Your task to perform on an android device: When is my next meeting? Image 0: 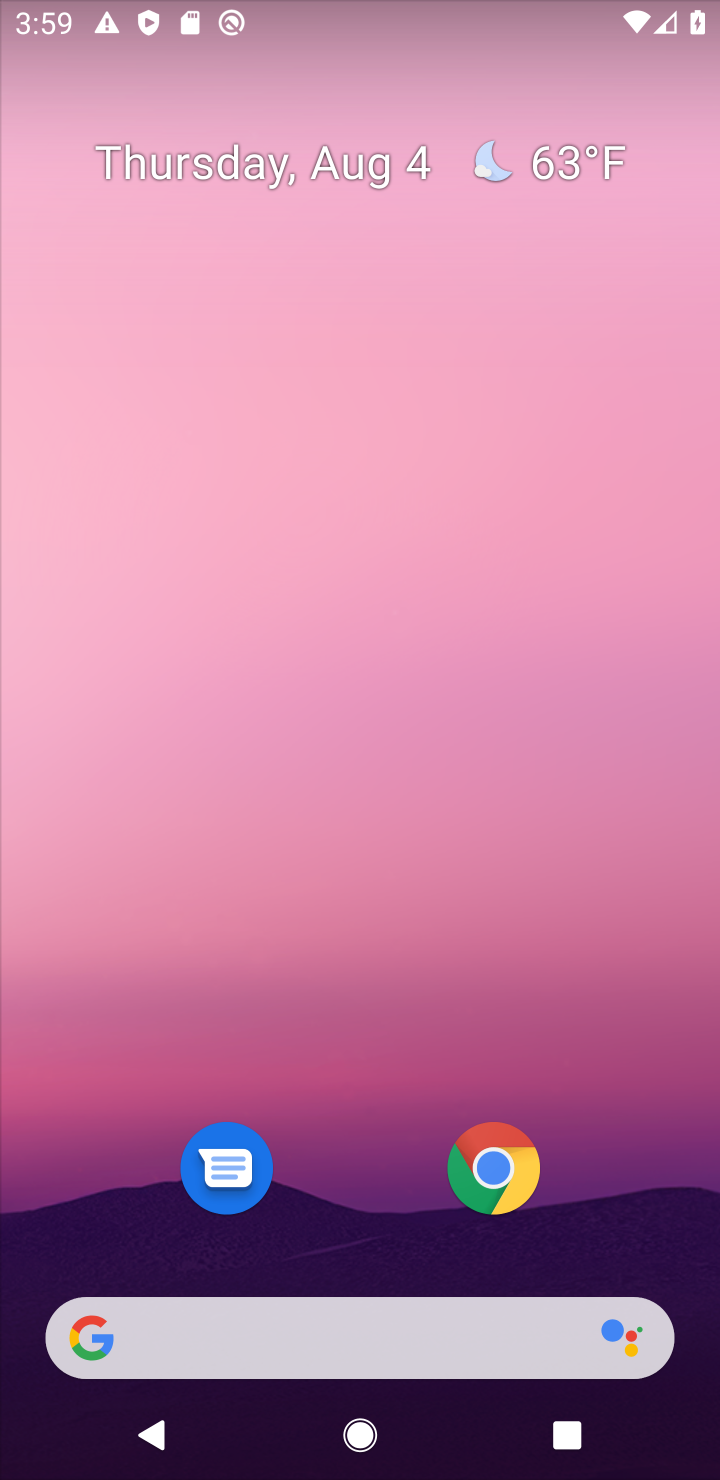
Step 0: drag from (391, 1277) to (312, 56)
Your task to perform on an android device: When is my next meeting? Image 1: 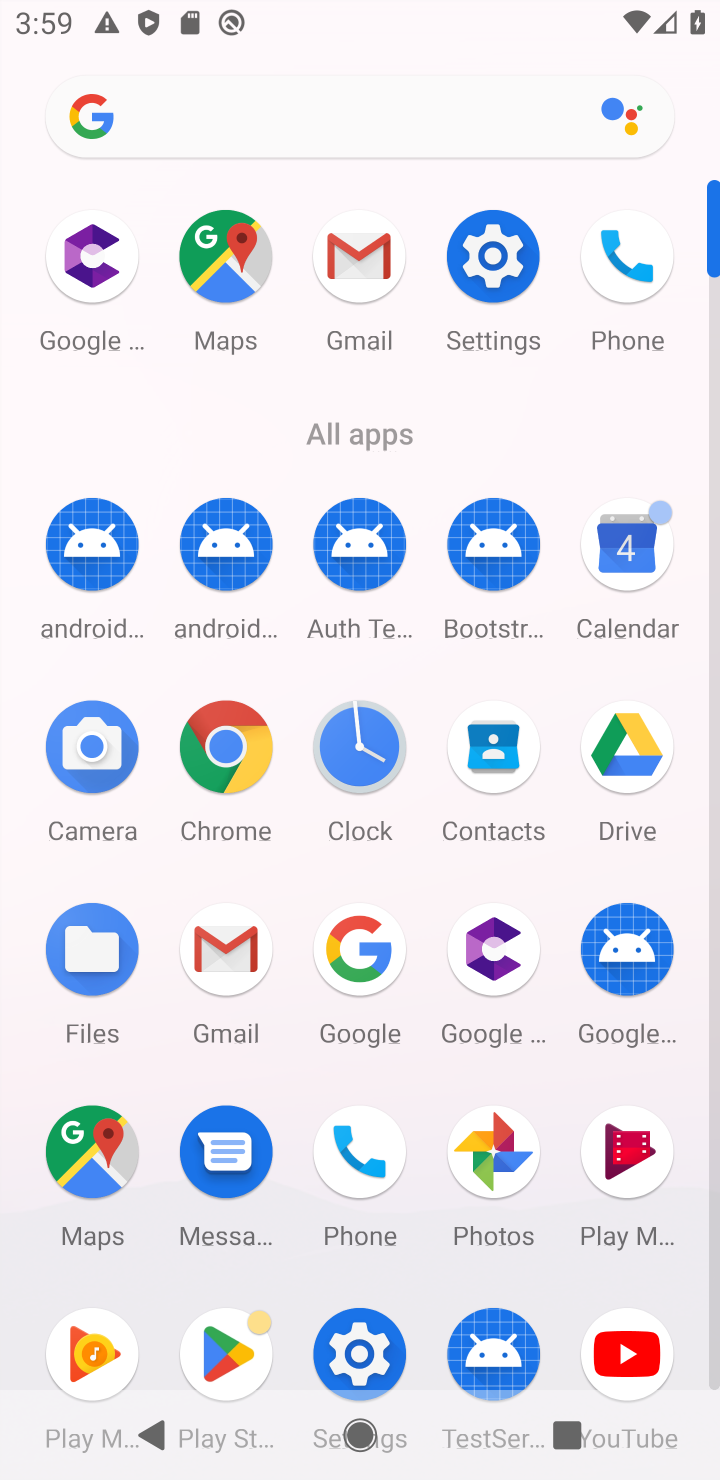
Step 1: click (614, 571)
Your task to perform on an android device: When is my next meeting? Image 2: 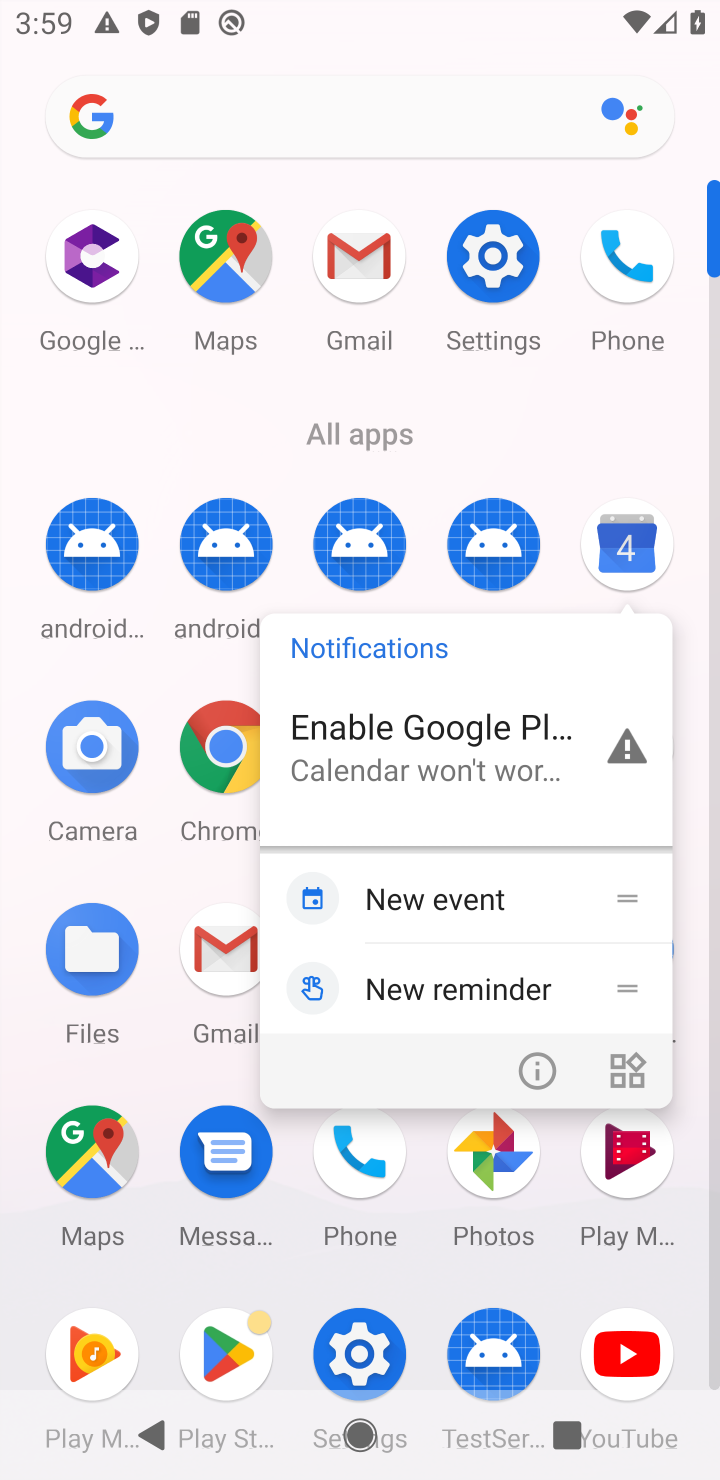
Step 2: click (635, 542)
Your task to perform on an android device: When is my next meeting? Image 3: 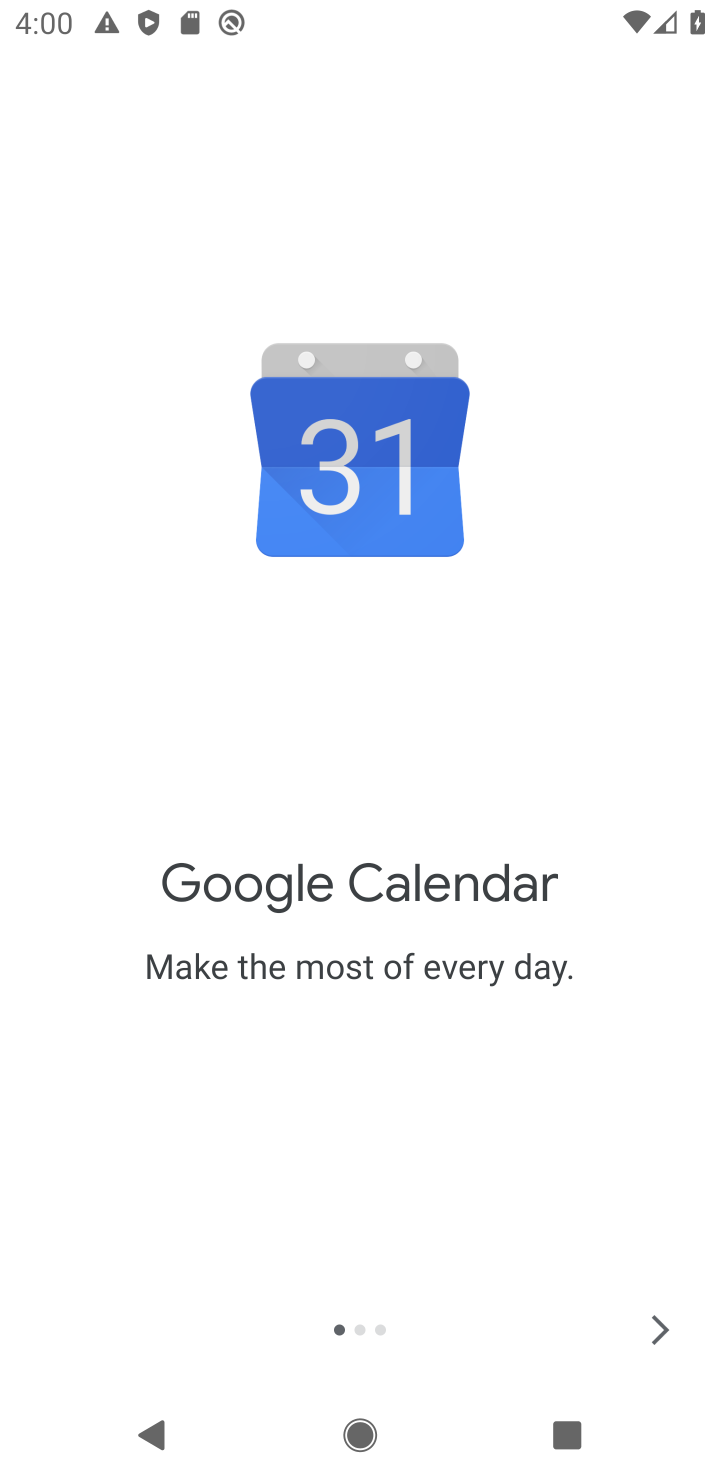
Step 3: click (649, 1345)
Your task to perform on an android device: When is my next meeting? Image 4: 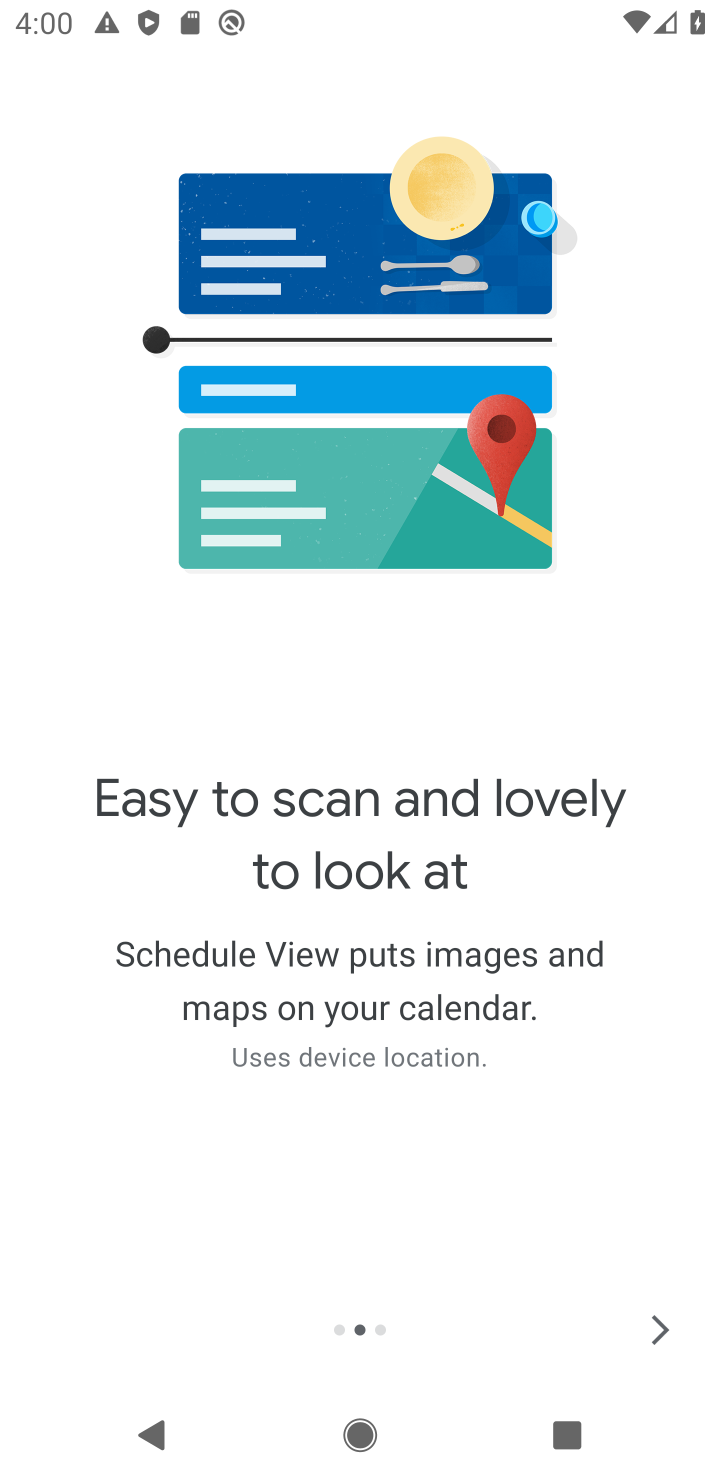
Step 4: click (649, 1345)
Your task to perform on an android device: When is my next meeting? Image 5: 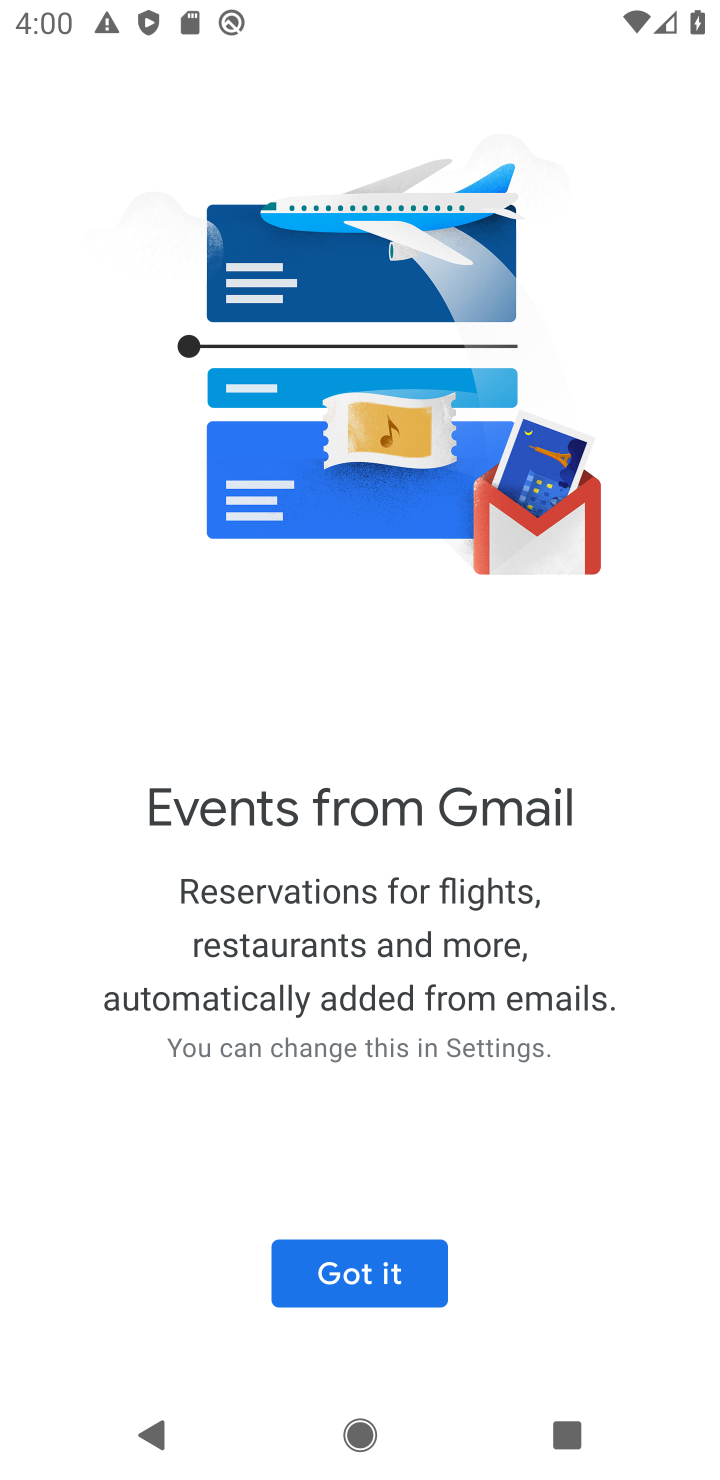
Step 5: click (330, 1263)
Your task to perform on an android device: When is my next meeting? Image 6: 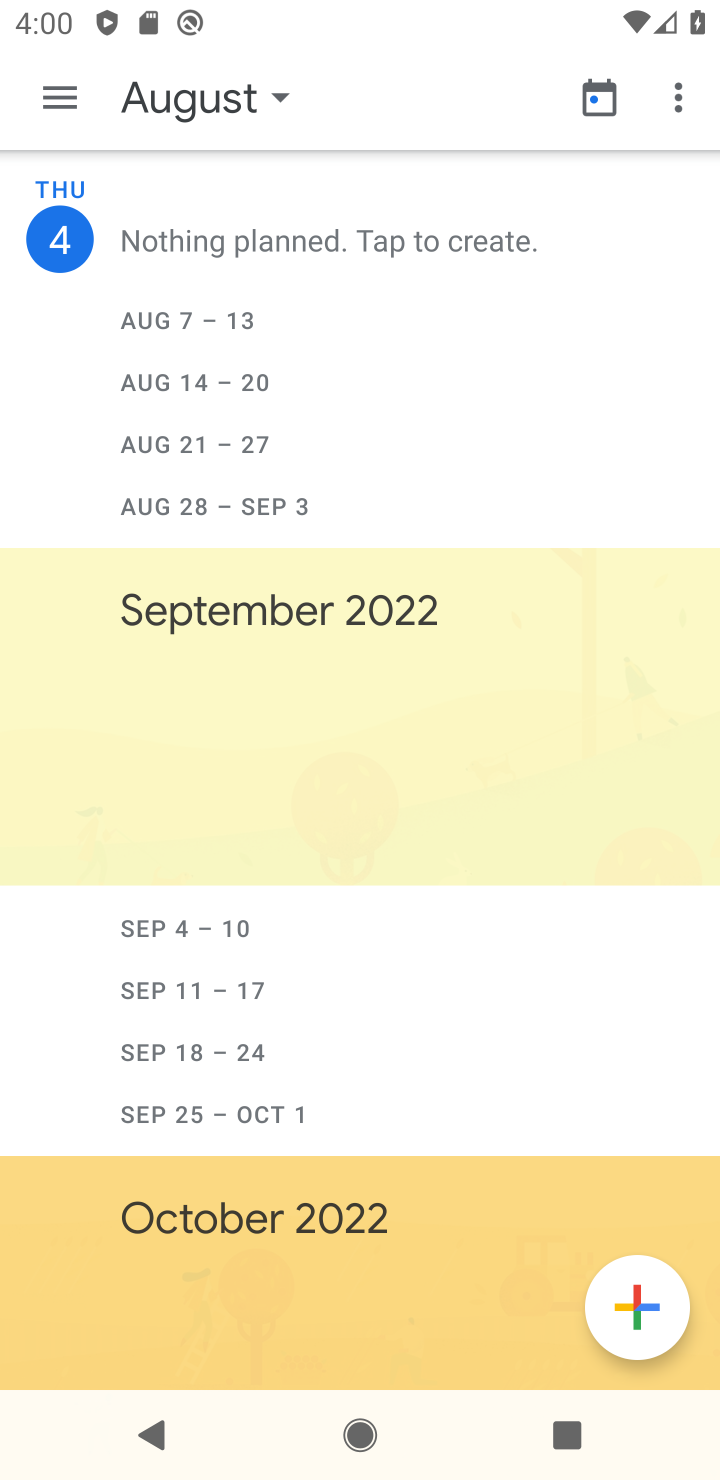
Step 6: click (61, 109)
Your task to perform on an android device: When is my next meeting? Image 7: 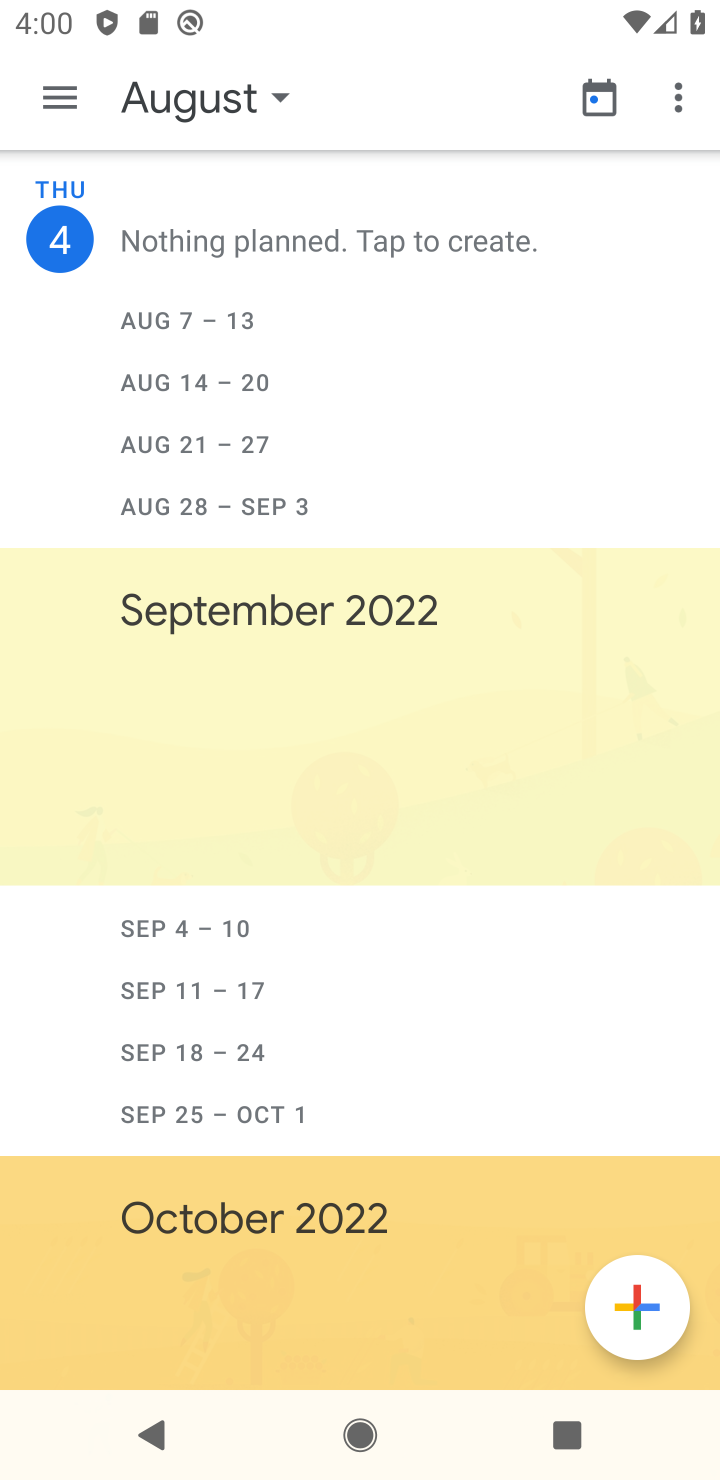
Step 7: click (56, 97)
Your task to perform on an android device: When is my next meeting? Image 8: 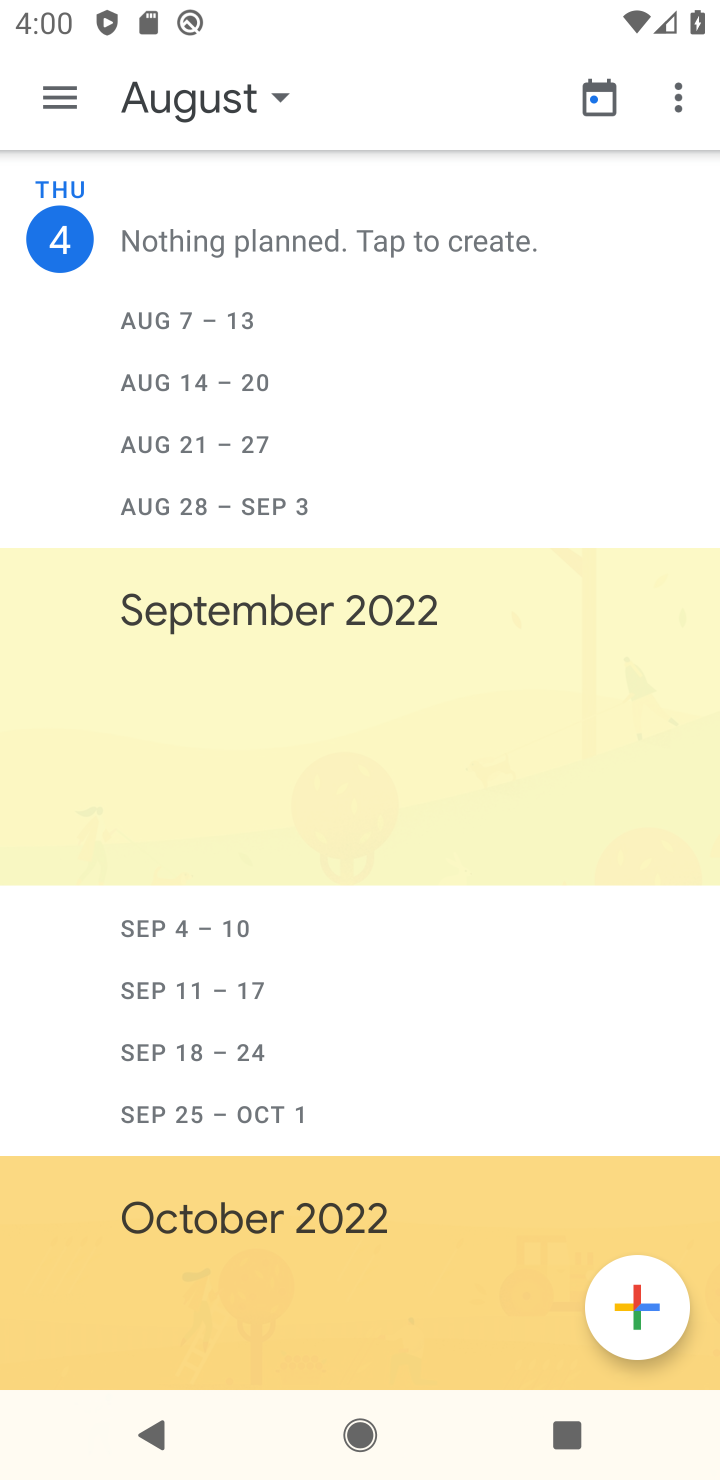
Step 8: task complete